Your task to perform on an android device: turn pop-ups on in chrome Image 0: 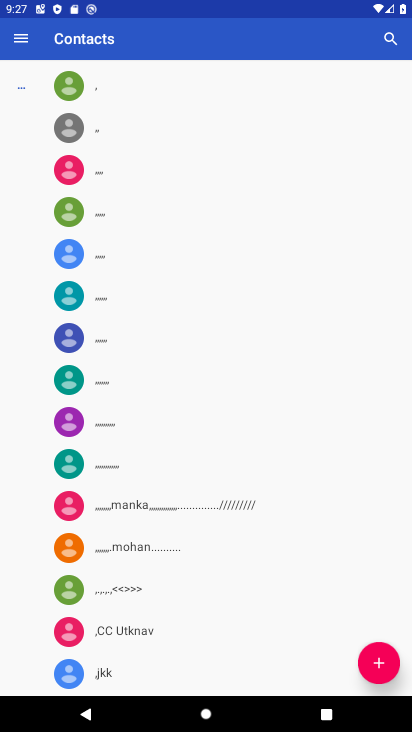
Step 0: press home button
Your task to perform on an android device: turn pop-ups on in chrome Image 1: 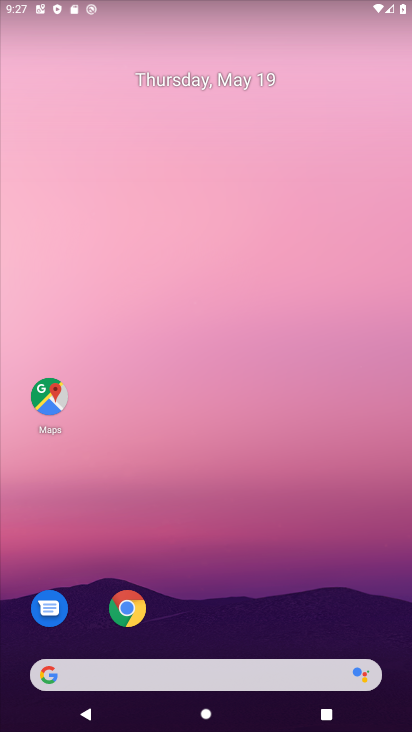
Step 1: click (128, 607)
Your task to perform on an android device: turn pop-ups on in chrome Image 2: 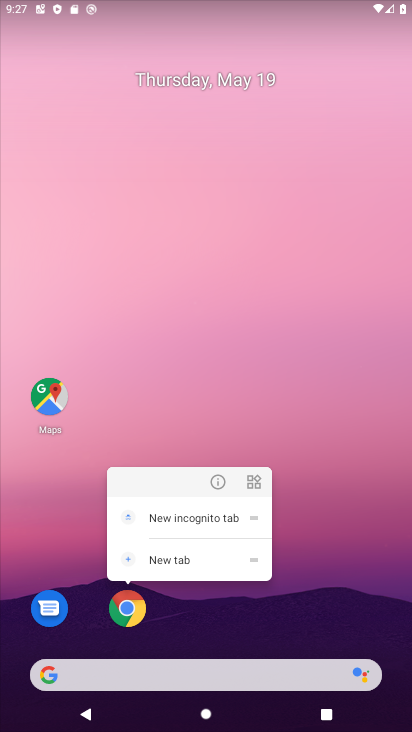
Step 2: click (217, 484)
Your task to perform on an android device: turn pop-ups on in chrome Image 3: 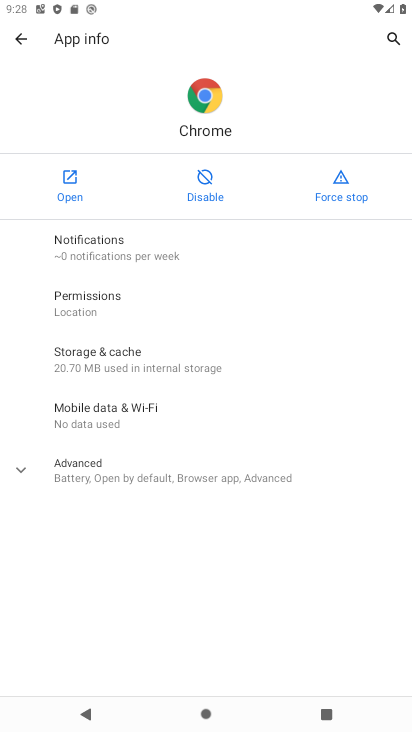
Step 3: click (74, 192)
Your task to perform on an android device: turn pop-ups on in chrome Image 4: 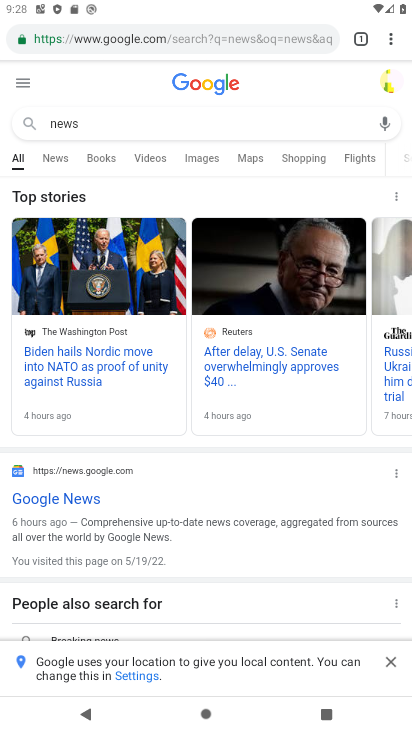
Step 4: click (390, 40)
Your task to perform on an android device: turn pop-ups on in chrome Image 5: 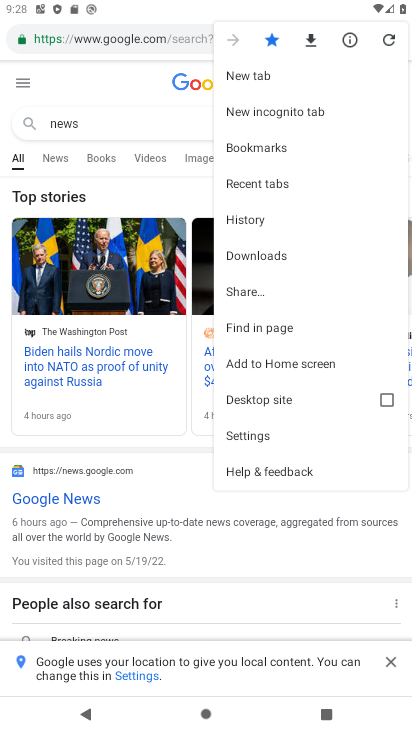
Step 5: click (254, 438)
Your task to perform on an android device: turn pop-ups on in chrome Image 6: 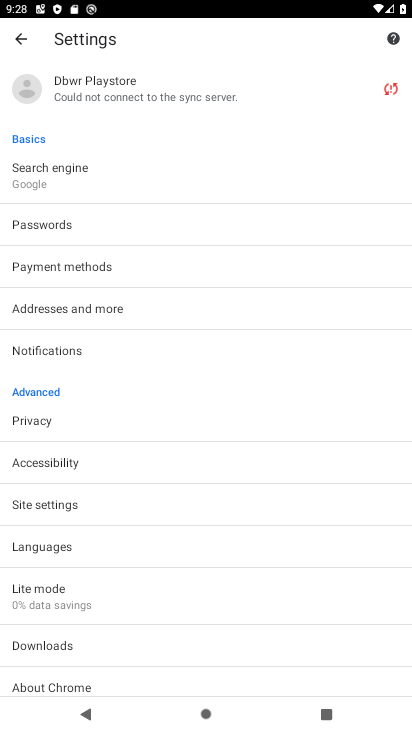
Step 6: click (48, 506)
Your task to perform on an android device: turn pop-ups on in chrome Image 7: 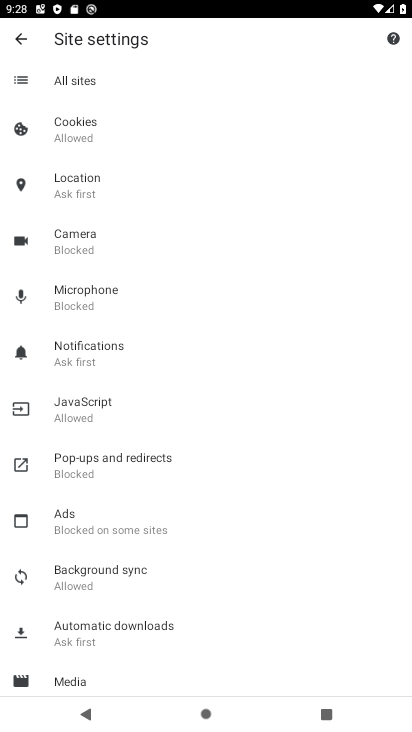
Step 7: click (116, 462)
Your task to perform on an android device: turn pop-ups on in chrome Image 8: 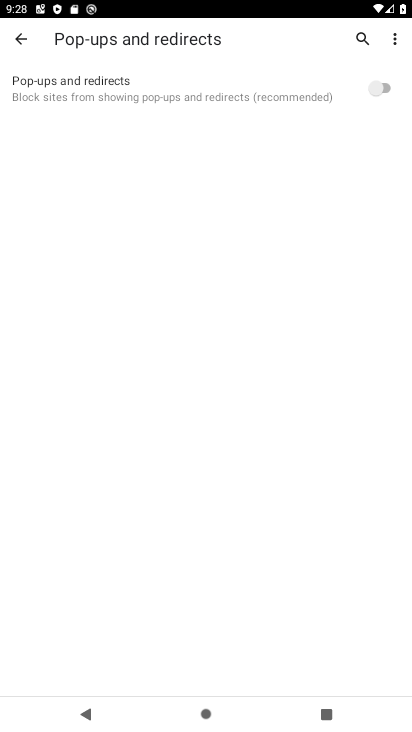
Step 8: task complete